Your task to perform on an android device: turn pop-ups off in chrome Image 0: 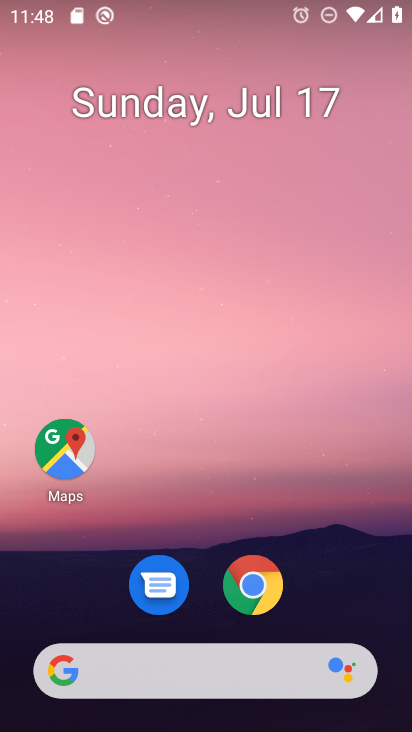
Step 0: click (276, 591)
Your task to perform on an android device: turn pop-ups off in chrome Image 1: 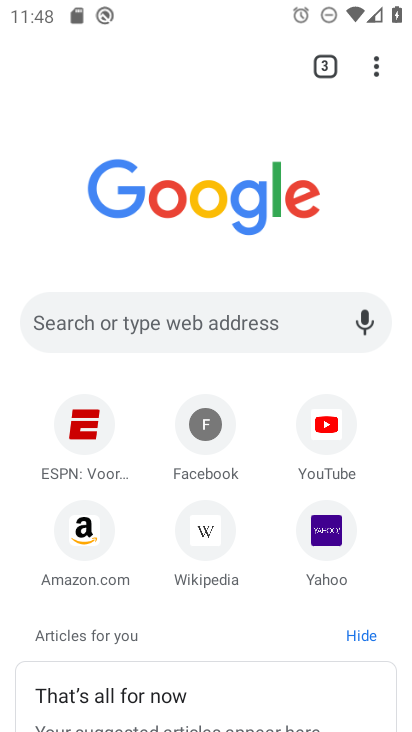
Step 1: click (373, 69)
Your task to perform on an android device: turn pop-ups off in chrome Image 2: 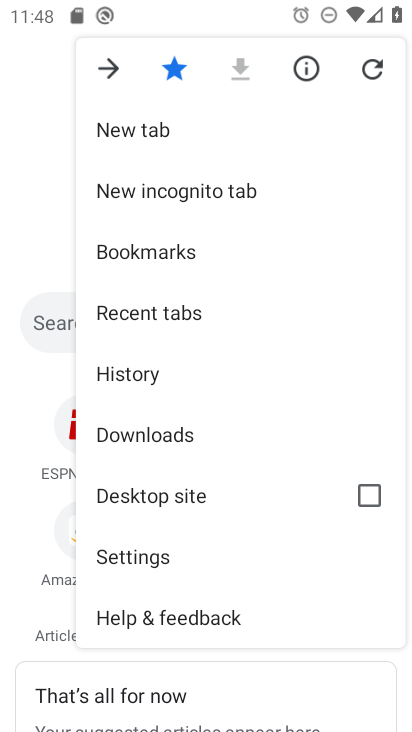
Step 2: click (173, 556)
Your task to perform on an android device: turn pop-ups off in chrome Image 3: 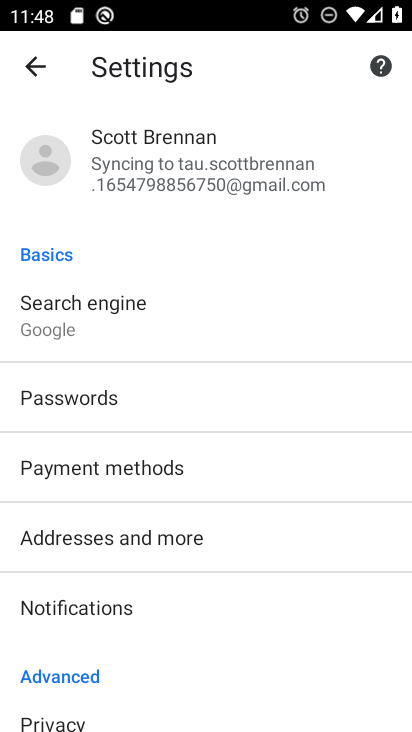
Step 3: drag from (234, 596) to (274, 367)
Your task to perform on an android device: turn pop-ups off in chrome Image 4: 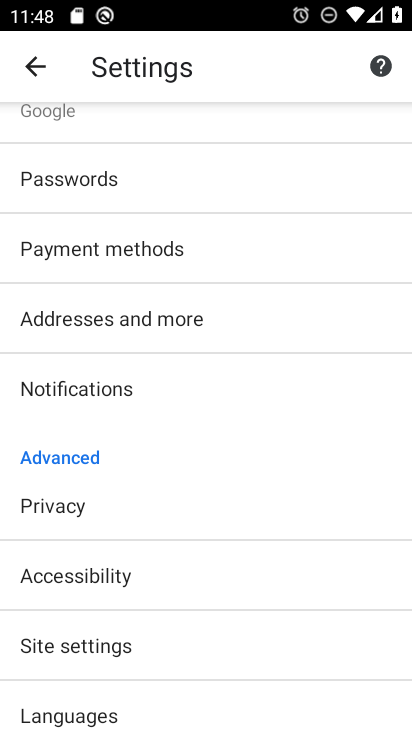
Step 4: click (110, 649)
Your task to perform on an android device: turn pop-ups off in chrome Image 5: 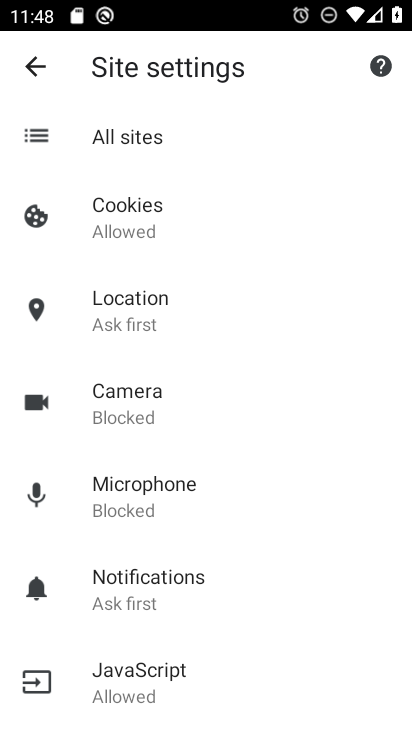
Step 5: drag from (236, 587) to (268, 410)
Your task to perform on an android device: turn pop-ups off in chrome Image 6: 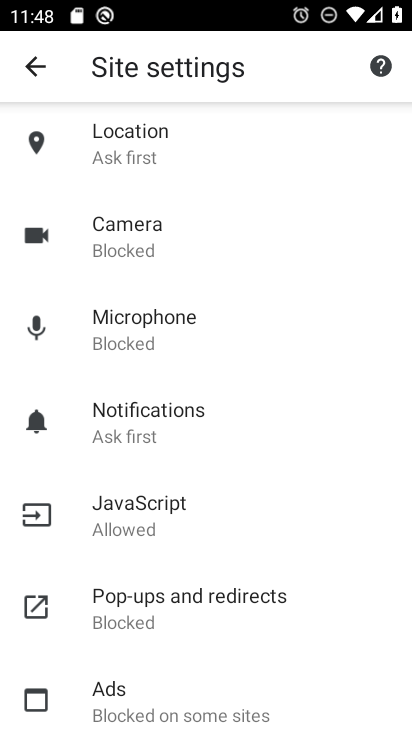
Step 6: click (228, 593)
Your task to perform on an android device: turn pop-ups off in chrome Image 7: 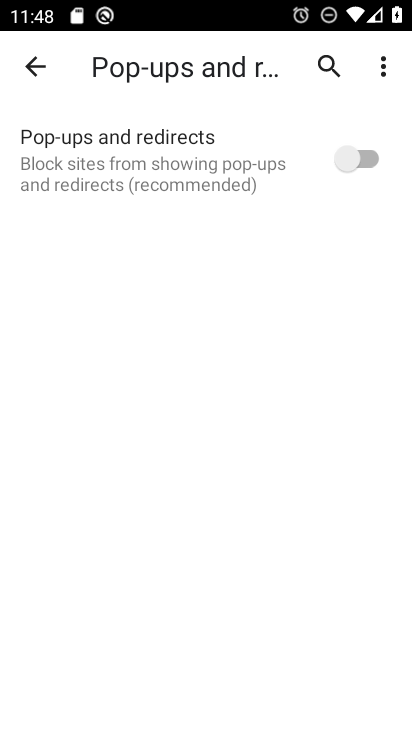
Step 7: task complete